Your task to perform on an android device: Find coffee shops on Maps Image 0: 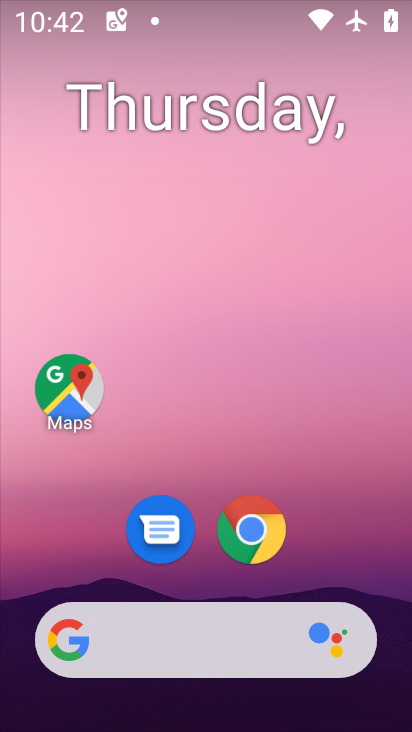
Step 0: click (52, 395)
Your task to perform on an android device: Find coffee shops on Maps Image 1: 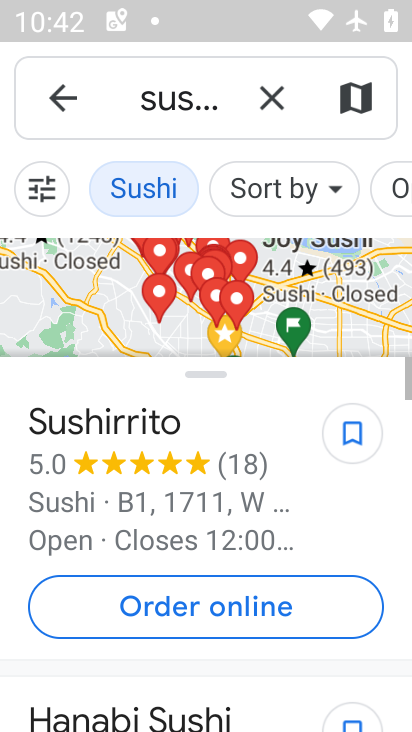
Step 1: click (253, 89)
Your task to perform on an android device: Find coffee shops on Maps Image 2: 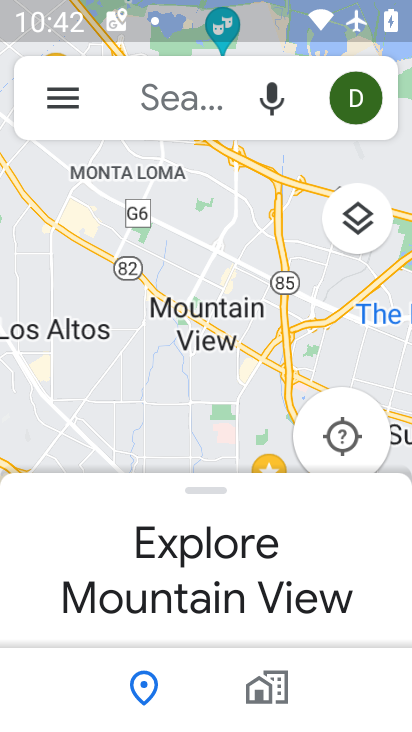
Step 2: click (194, 111)
Your task to perform on an android device: Find coffee shops on Maps Image 3: 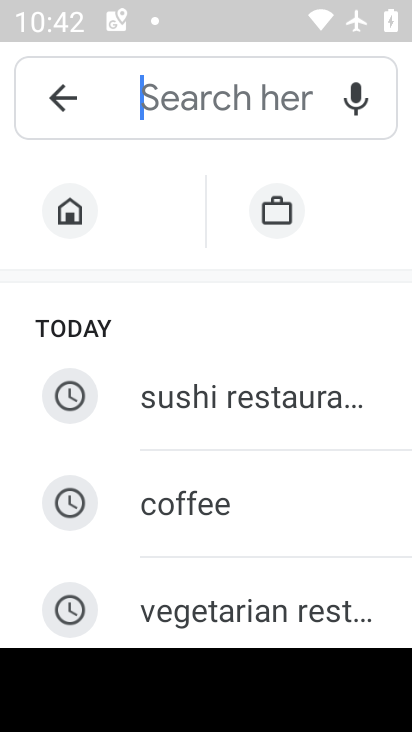
Step 3: type "coffee shops"
Your task to perform on an android device: Find coffee shops on Maps Image 4: 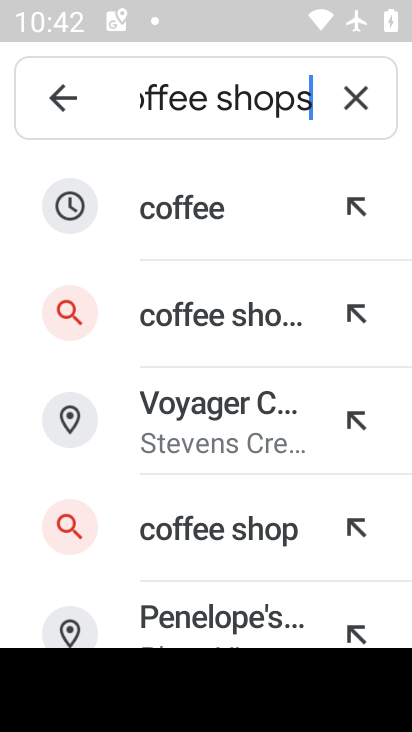
Step 4: click (197, 293)
Your task to perform on an android device: Find coffee shops on Maps Image 5: 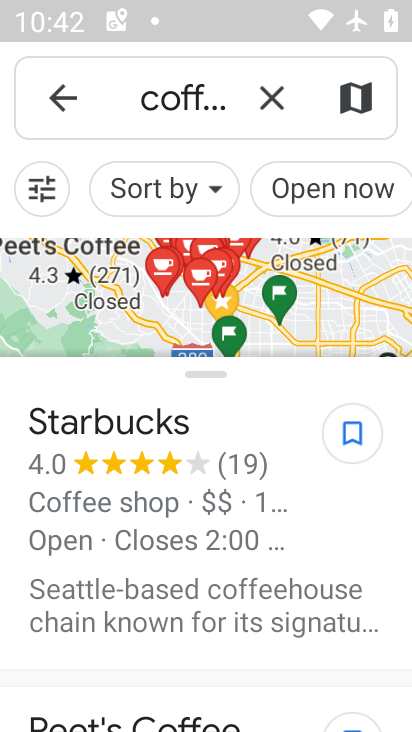
Step 5: task complete